Your task to perform on an android device: Open Chrome and go to settings Image 0: 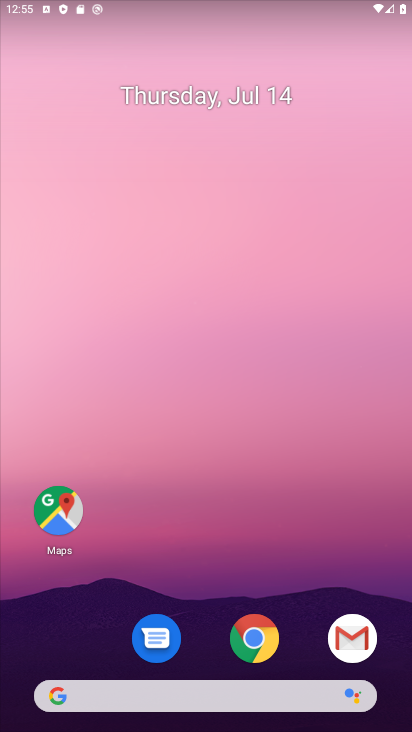
Step 0: click (269, 623)
Your task to perform on an android device: Open Chrome and go to settings Image 1: 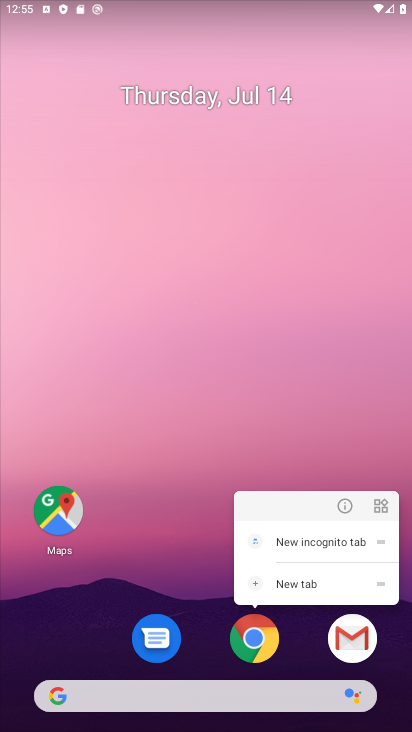
Step 1: click (265, 650)
Your task to perform on an android device: Open Chrome and go to settings Image 2: 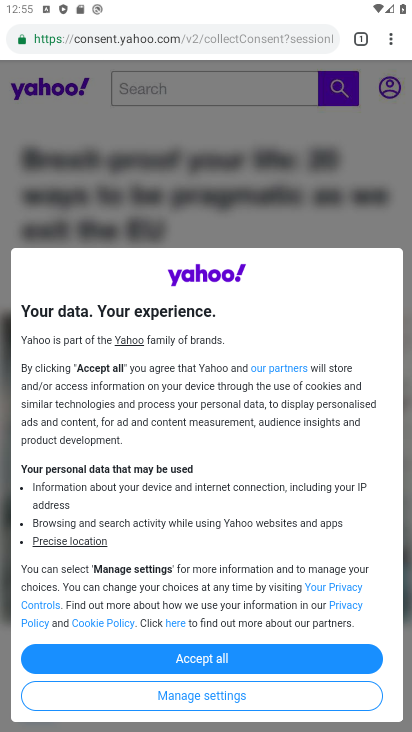
Step 2: click (398, 35)
Your task to perform on an android device: Open Chrome and go to settings Image 3: 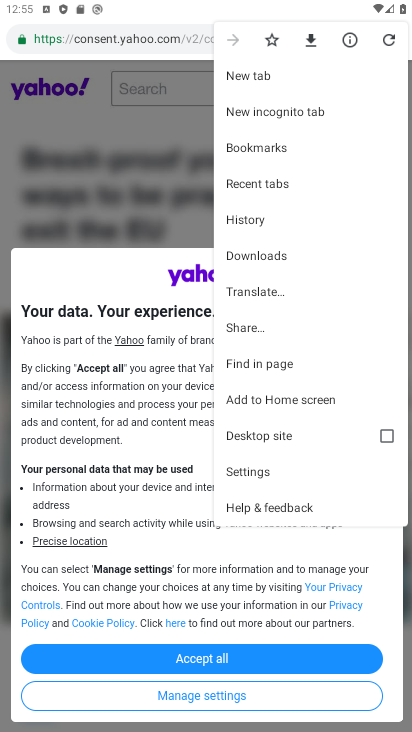
Step 3: click (251, 471)
Your task to perform on an android device: Open Chrome and go to settings Image 4: 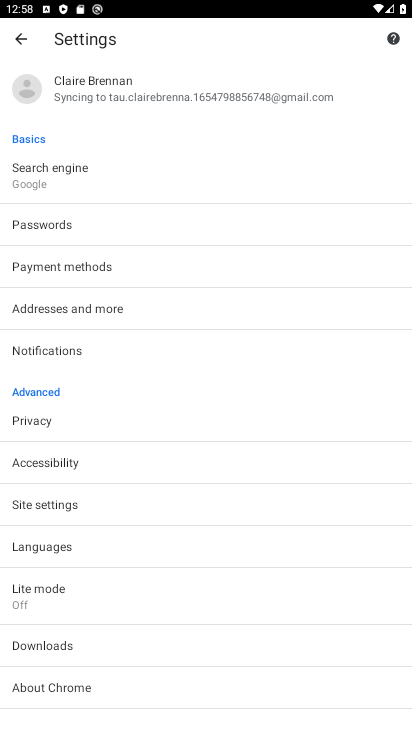
Step 4: task complete